Your task to perform on an android device: install app "McDonald's" Image 0: 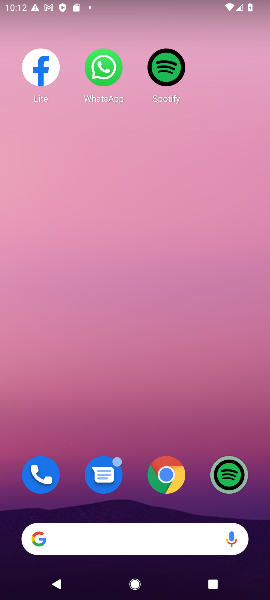
Step 0: drag from (138, 503) to (111, 63)
Your task to perform on an android device: install app "McDonald's" Image 1: 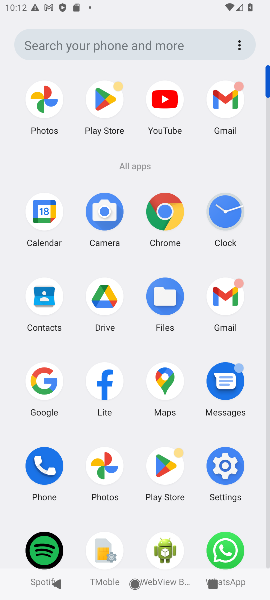
Step 1: click (114, 100)
Your task to perform on an android device: install app "McDonald's" Image 2: 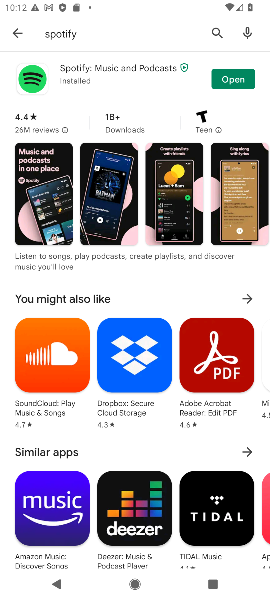
Step 2: click (23, 31)
Your task to perform on an android device: install app "McDonald's" Image 3: 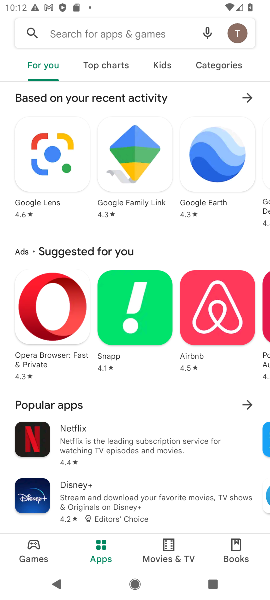
Step 3: click (149, 32)
Your task to perform on an android device: install app "McDonald's" Image 4: 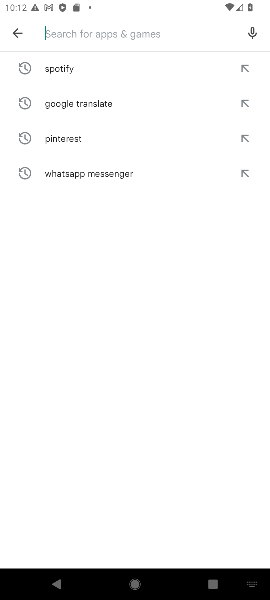
Step 4: type "McDonald's"
Your task to perform on an android device: install app "McDonald's" Image 5: 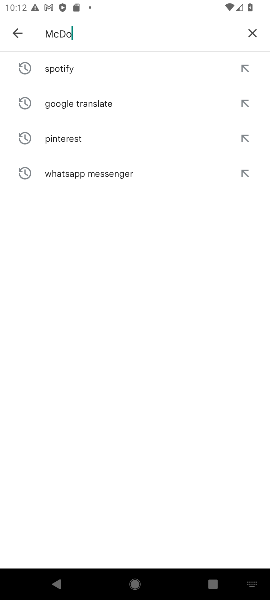
Step 5: type ""
Your task to perform on an android device: install app "McDonald's" Image 6: 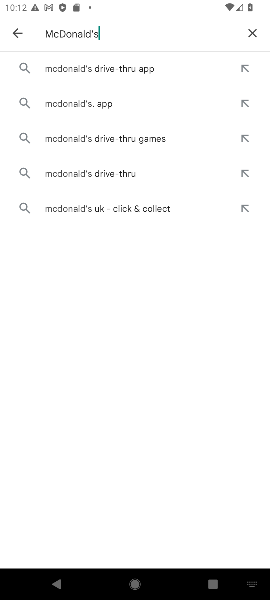
Step 6: click (104, 109)
Your task to perform on an android device: install app "McDonald's" Image 7: 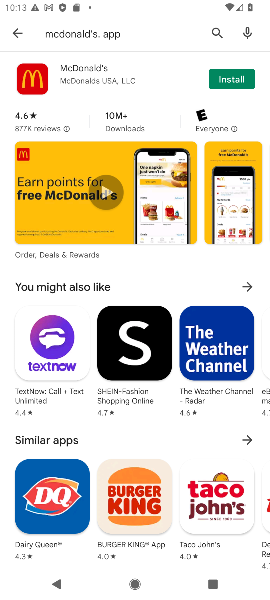
Step 7: click (225, 79)
Your task to perform on an android device: install app "McDonald's" Image 8: 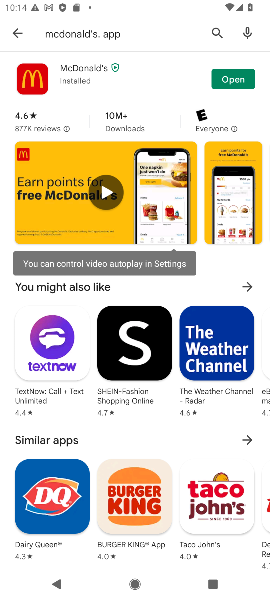
Step 8: click (232, 77)
Your task to perform on an android device: install app "McDonald's" Image 9: 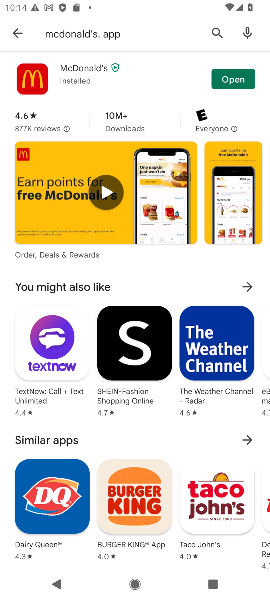
Step 9: task complete